Your task to perform on an android device: toggle translation in the chrome app Image 0: 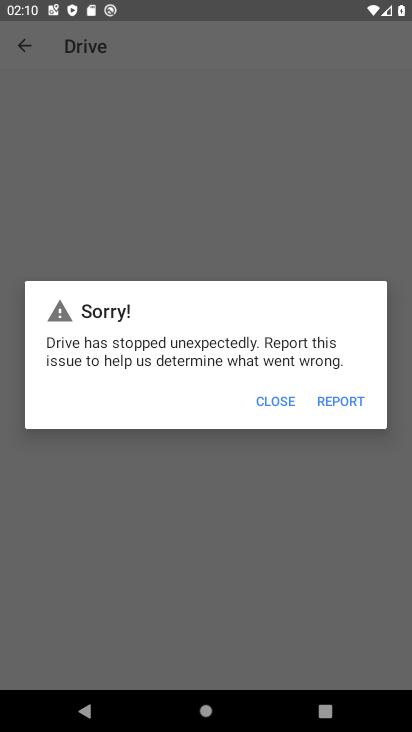
Step 0: press home button
Your task to perform on an android device: toggle translation in the chrome app Image 1: 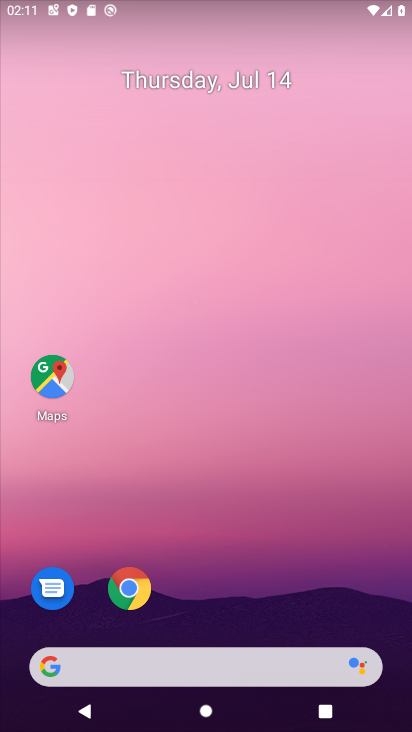
Step 1: click (115, 592)
Your task to perform on an android device: toggle translation in the chrome app Image 2: 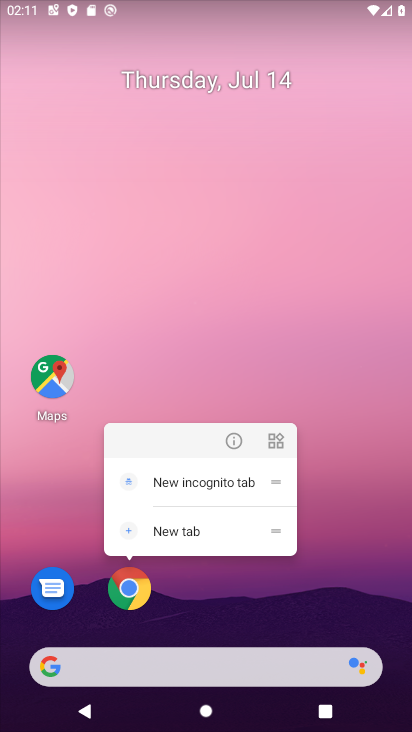
Step 2: click (115, 592)
Your task to perform on an android device: toggle translation in the chrome app Image 3: 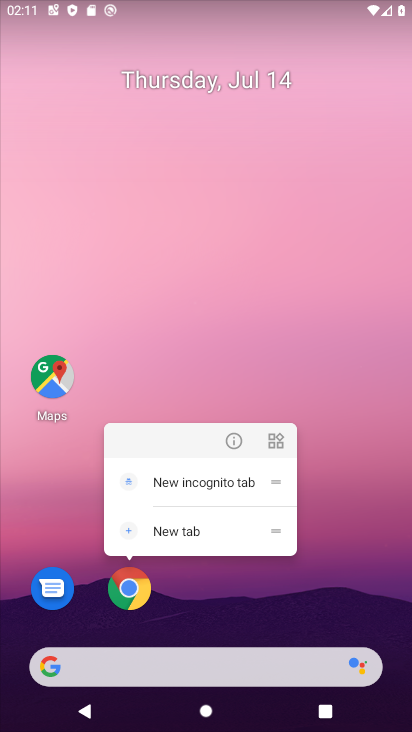
Step 3: click (134, 593)
Your task to perform on an android device: toggle translation in the chrome app Image 4: 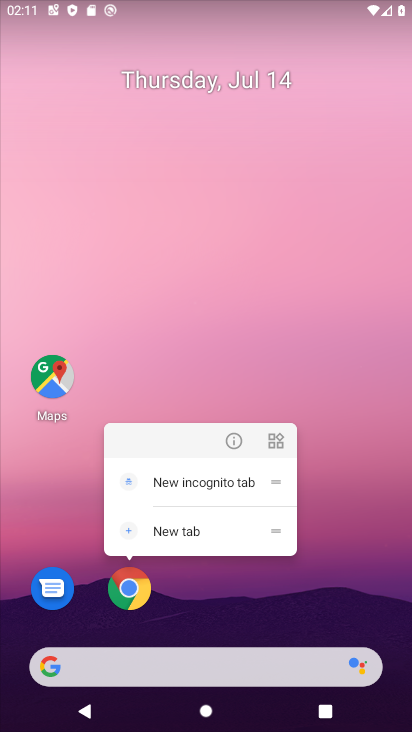
Step 4: click (134, 593)
Your task to perform on an android device: toggle translation in the chrome app Image 5: 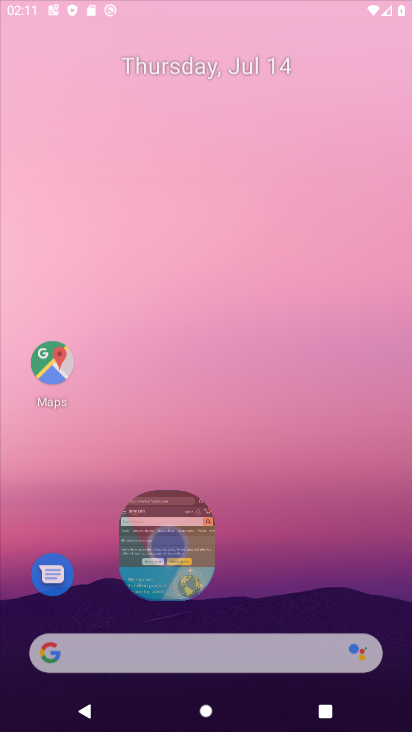
Step 5: click (134, 593)
Your task to perform on an android device: toggle translation in the chrome app Image 6: 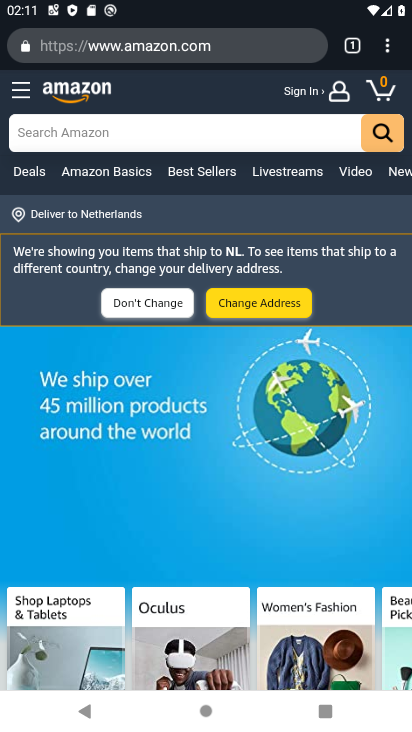
Step 6: click (384, 39)
Your task to perform on an android device: toggle translation in the chrome app Image 7: 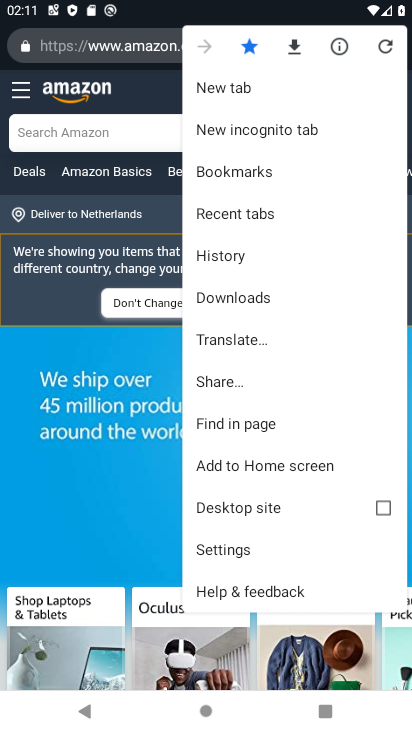
Step 7: click (254, 552)
Your task to perform on an android device: toggle translation in the chrome app Image 8: 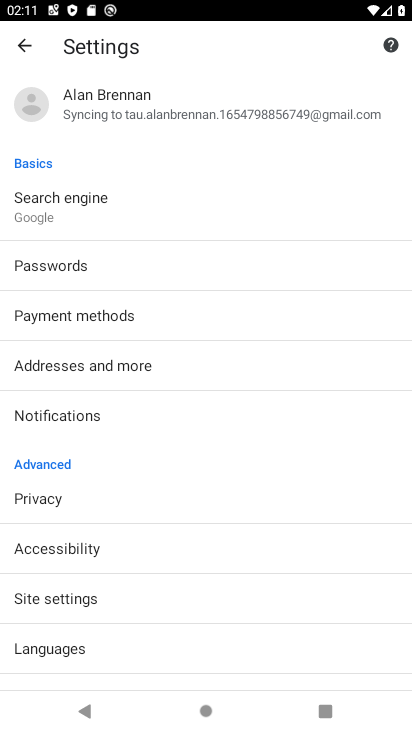
Step 8: click (98, 649)
Your task to perform on an android device: toggle translation in the chrome app Image 9: 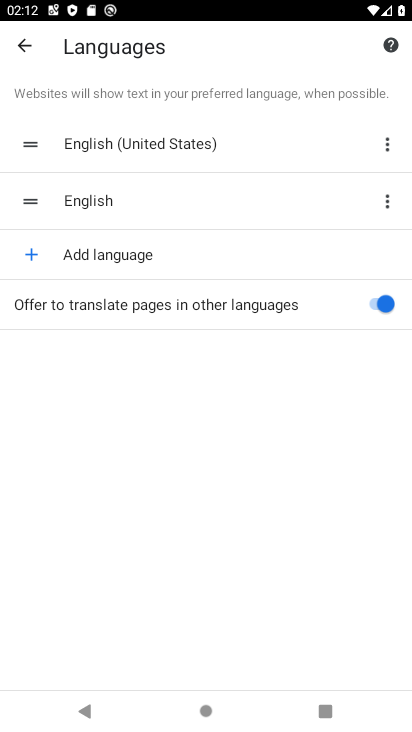
Step 9: click (390, 302)
Your task to perform on an android device: toggle translation in the chrome app Image 10: 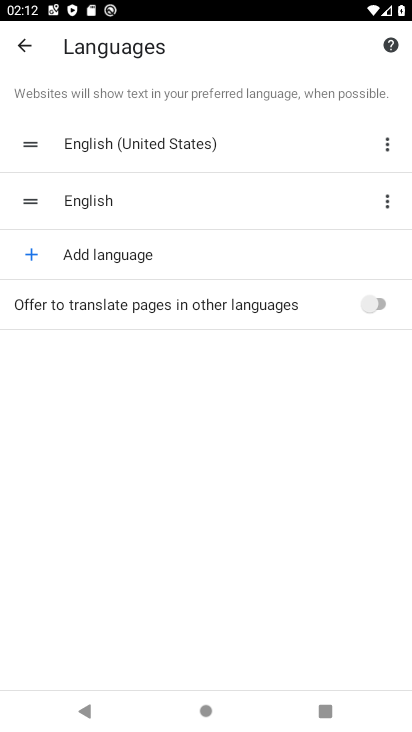
Step 10: task complete